Your task to perform on an android device: Open the map Image 0: 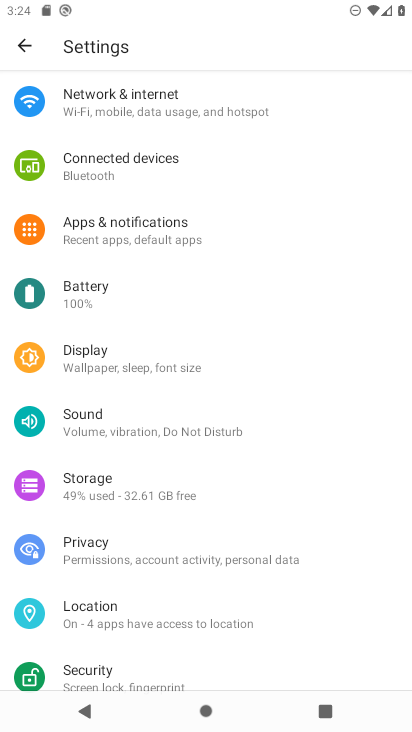
Step 0: press home button
Your task to perform on an android device: Open the map Image 1: 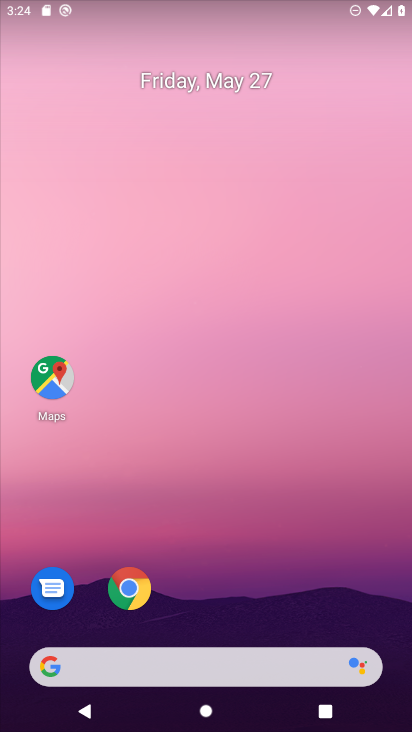
Step 1: click (47, 378)
Your task to perform on an android device: Open the map Image 2: 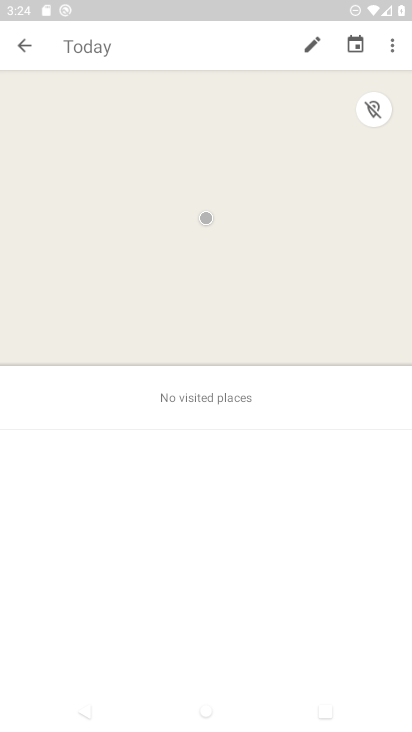
Step 2: task complete